Your task to perform on an android device: Open Google Chrome and open the bookmarks view Image 0: 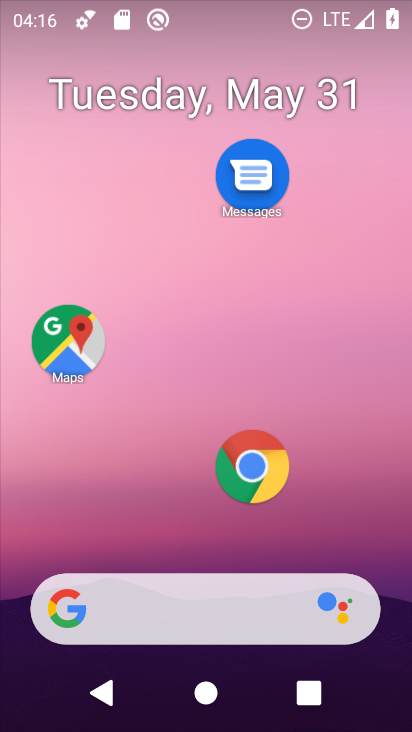
Step 0: click (258, 466)
Your task to perform on an android device: Open Google Chrome and open the bookmarks view Image 1: 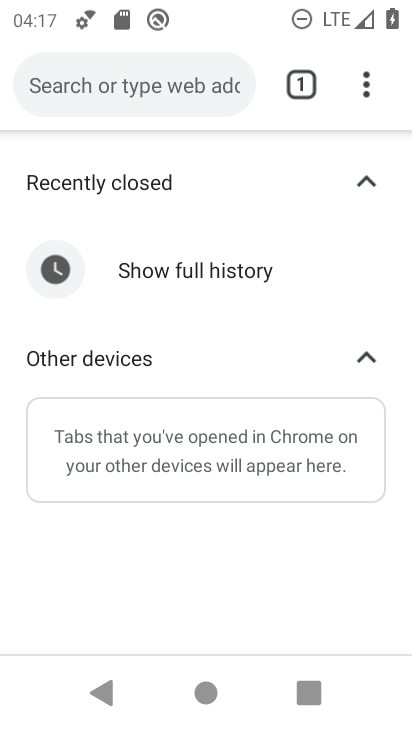
Step 1: task complete